Your task to perform on an android device: Show me productivity apps on the Play Store Image 0: 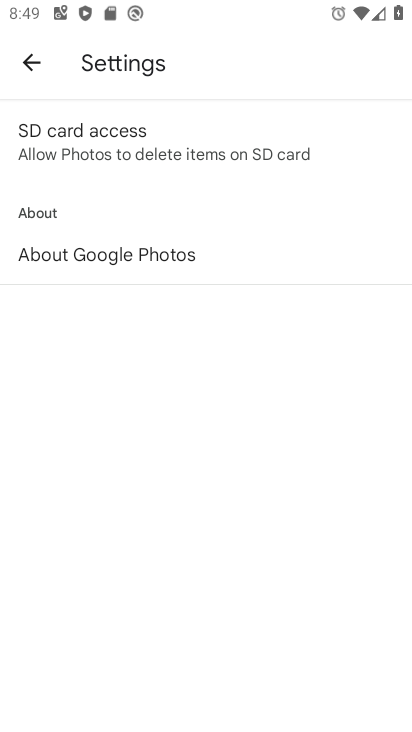
Step 0: drag from (201, 614) to (263, 240)
Your task to perform on an android device: Show me productivity apps on the Play Store Image 1: 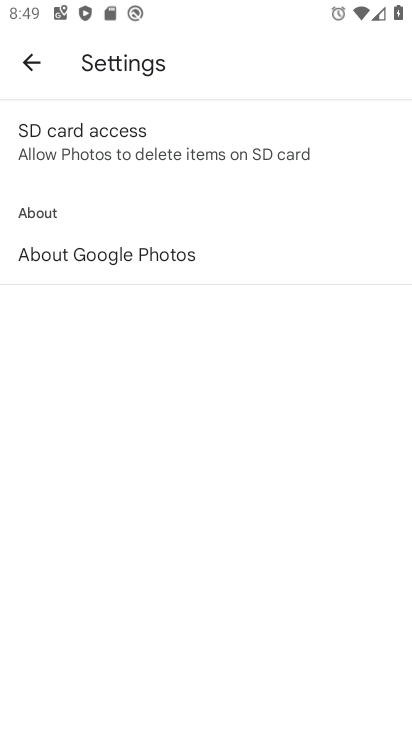
Step 1: press home button
Your task to perform on an android device: Show me productivity apps on the Play Store Image 2: 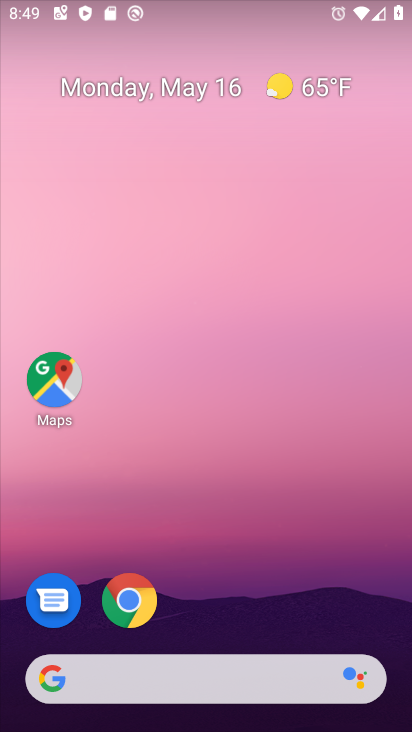
Step 2: drag from (166, 665) to (265, 156)
Your task to perform on an android device: Show me productivity apps on the Play Store Image 3: 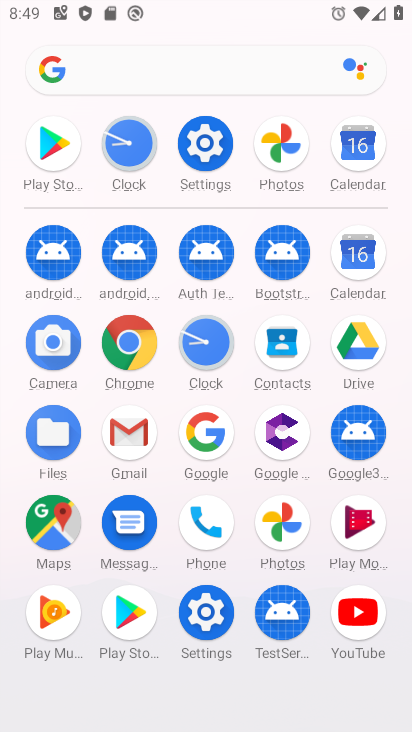
Step 3: click (123, 599)
Your task to perform on an android device: Show me productivity apps on the Play Store Image 4: 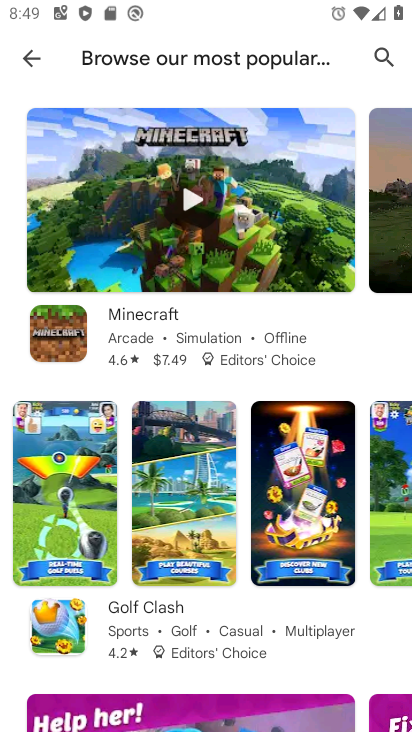
Step 4: task complete